Your task to perform on an android device: toggle notifications settings in the gmail app Image 0: 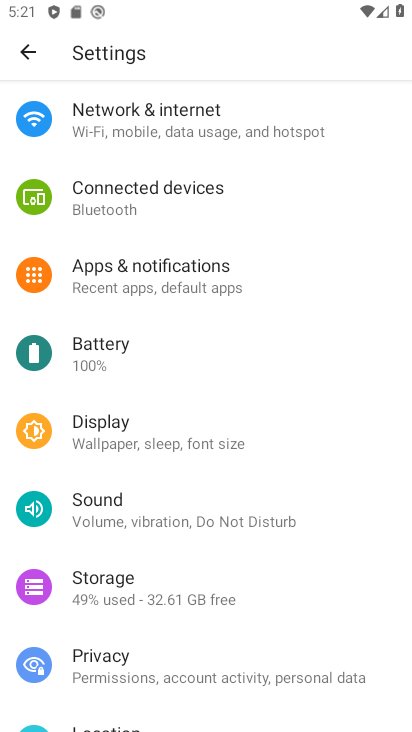
Step 0: press home button
Your task to perform on an android device: toggle notifications settings in the gmail app Image 1: 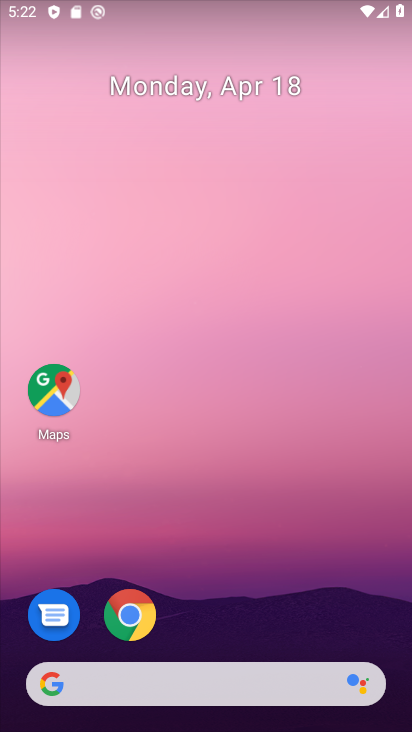
Step 1: drag from (297, 601) to (238, 0)
Your task to perform on an android device: toggle notifications settings in the gmail app Image 2: 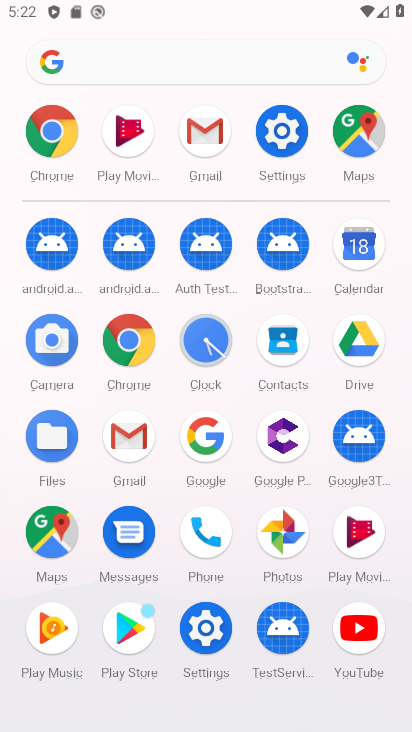
Step 2: click (207, 126)
Your task to perform on an android device: toggle notifications settings in the gmail app Image 3: 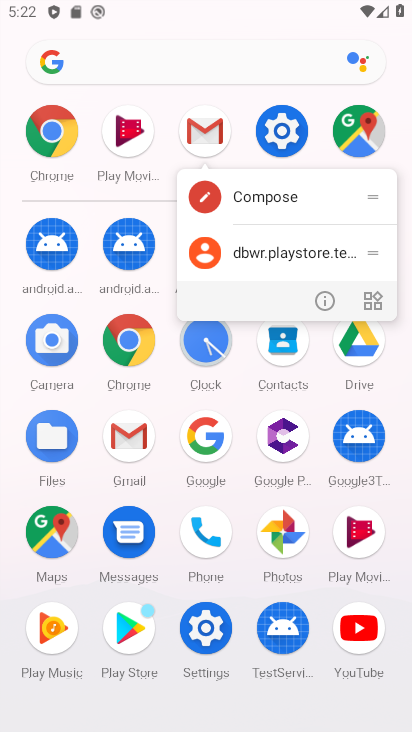
Step 3: click (312, 295)
Your task to perform on an android device: toggle notifications settings in the gmail app Image 4: 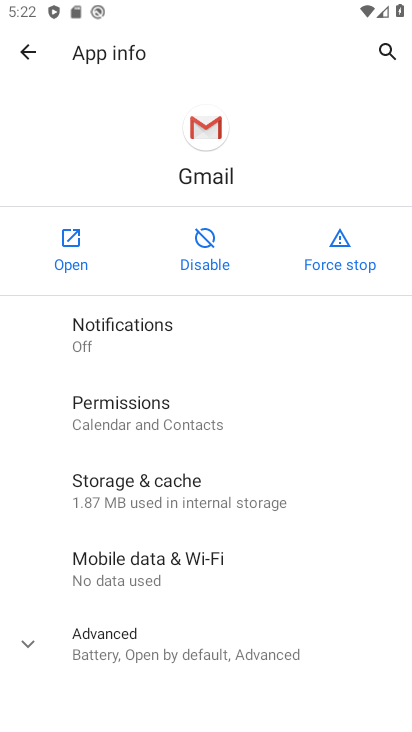
Step 4: click (55, 336)
Your task to perform on an android device: toggle notifications settings in the gmail app Image 5: 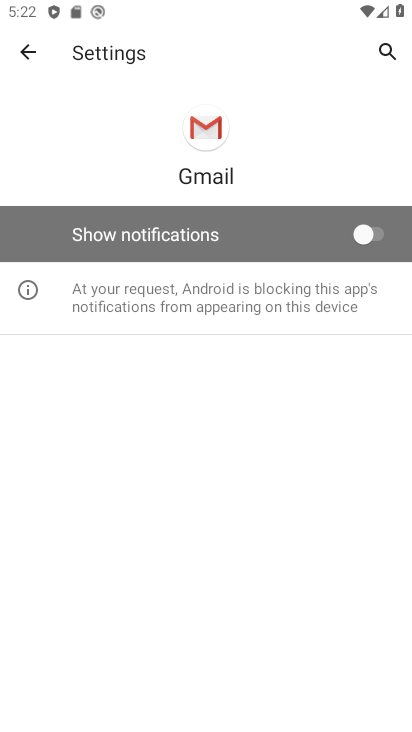
Step 5: click (362, 235)
Your task to perform on an android device: toggle notifications settings in the gmail app Image 6: 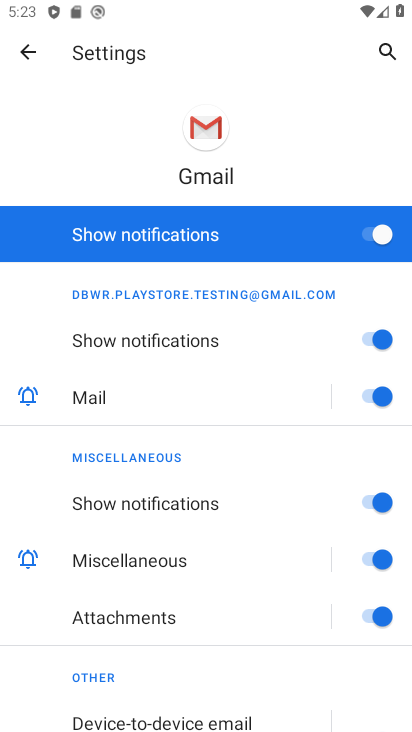
Step 6: click (386, 251)
Your task to perform on an android device: toggle notifications settings in the gmail app Image 7: 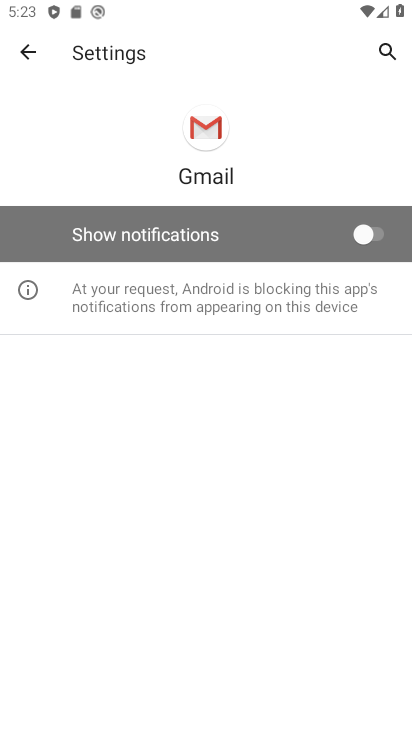
Step 7: task complete